Your task to perform on an android device: make emails show in primary in the gmail app Image 0: 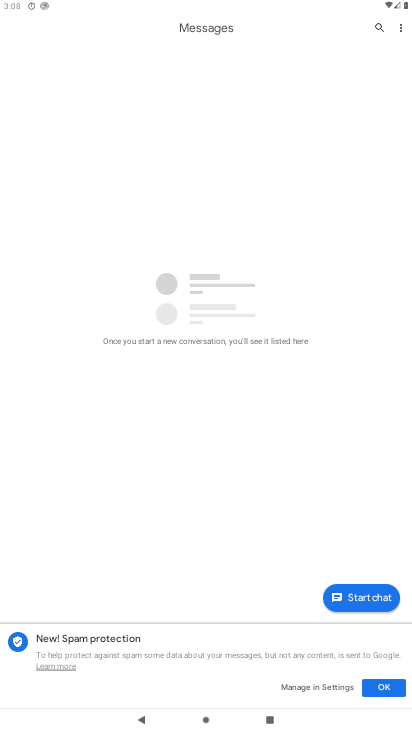
Step 0: press home button
Your task to perform on an android device: make emails show in primary in the gmail app Image 1: 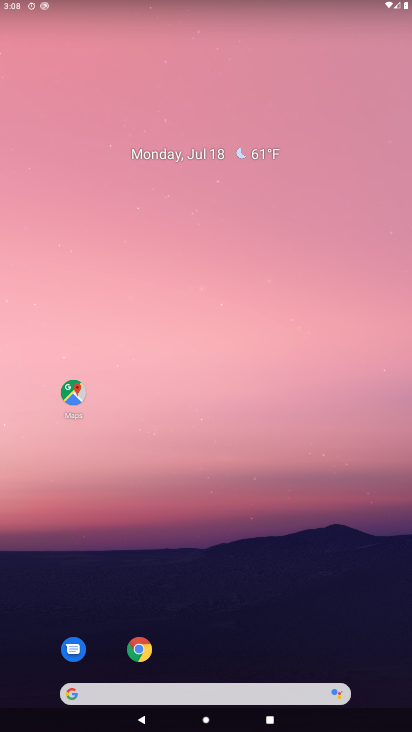
Step 1: drag from (11, 674) to (236, 273)
Your task to perform on an android device: make emails show in primary in the gmail app Image 2: 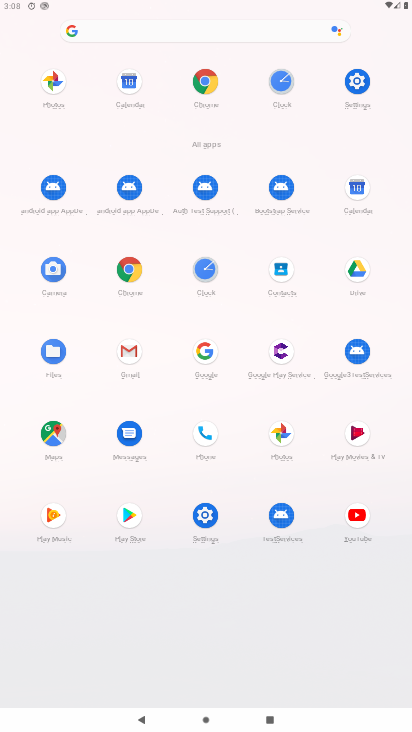
Step 2: click (133, 361)
Your task to perform on an android device: make emails show in primary in the gmail app Image 3: 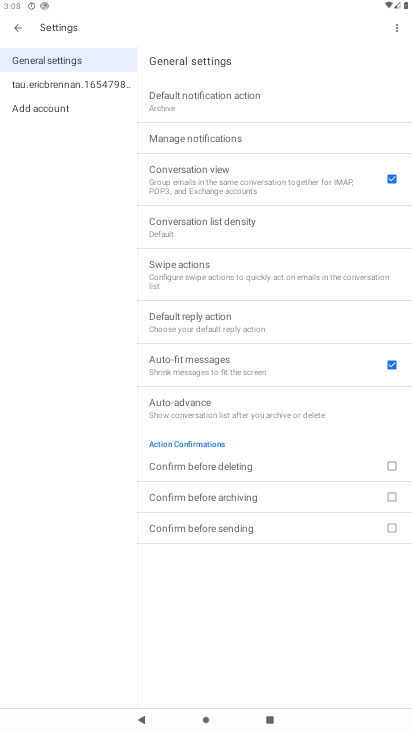
Step 3: click (17, 20)
Your task to perform on an android device: make emails show in primary in the gmail app Image 4: 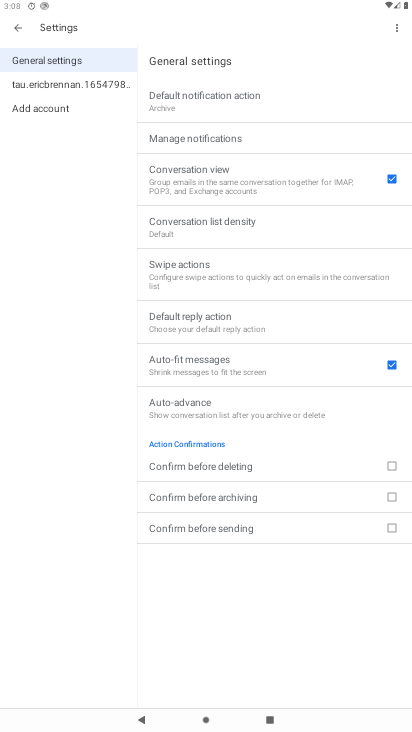
Step 4: click (15, 25)
Your task to perform on an android device: make emails show in primary in the gmail app Image 5: 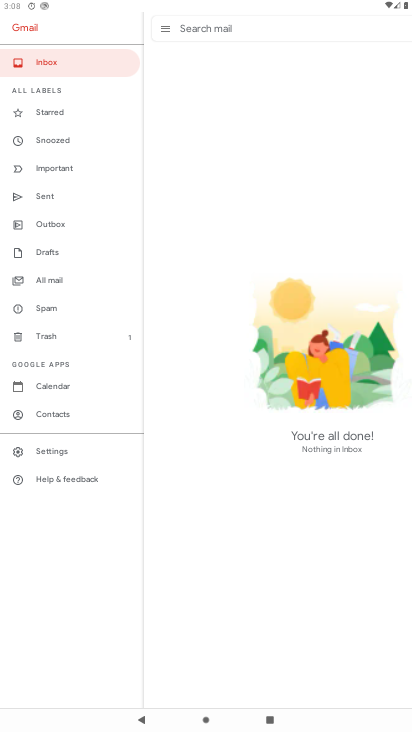
Step 5: click (61, 65)
Your task to perform on an android device: make emails show in primary in the gmail app Image 6: 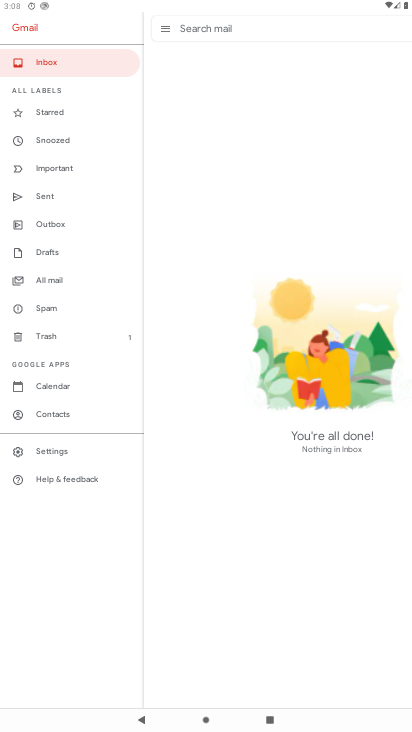
Step 6: task complete